Your task to perform on an android device: Open privacy settings Image 0: 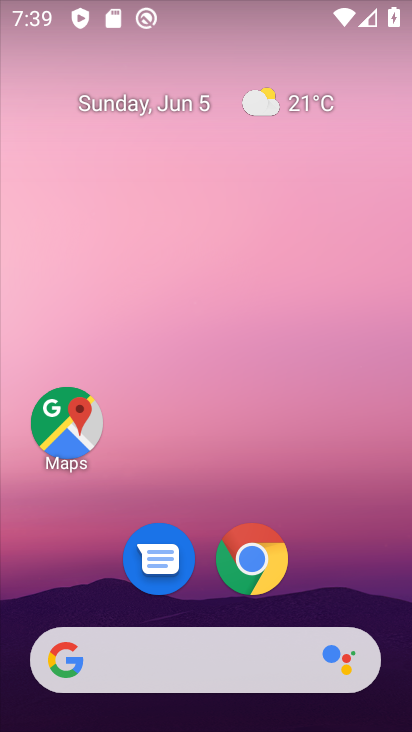
Step 0: drag from (283, 13) to (231, 607)
Your task to perform on an android device: Open privacy settings Image 1: 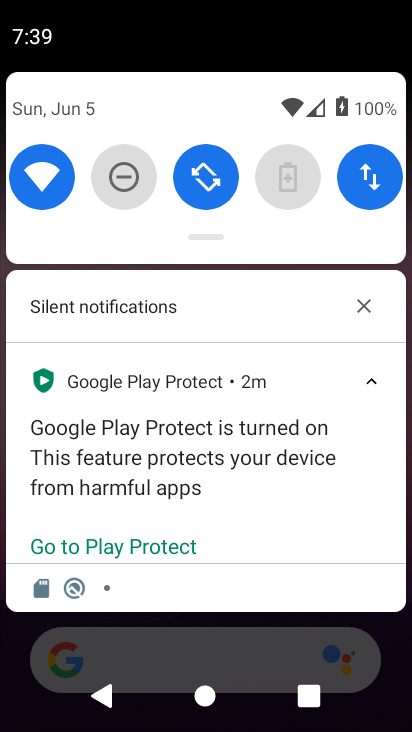
Step 1: drag from (339, 678) to (282, 54)
Your task to perform on an android device: Open privacy settings Image 2: 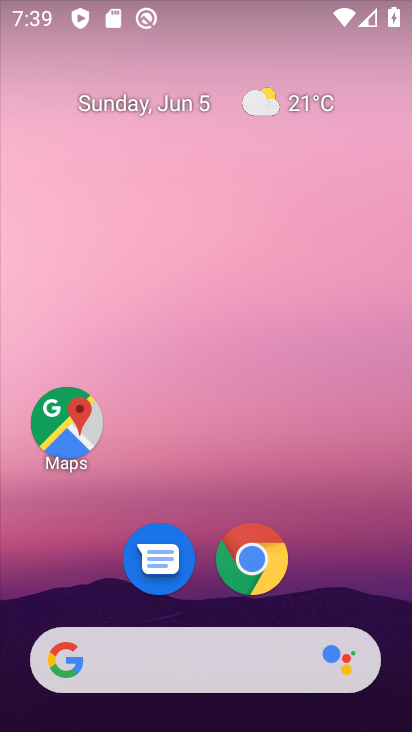
Step 2: drag from (368, 577) to (172, 131)
Your task to perform on an android device: Open privacy settings Image 3: 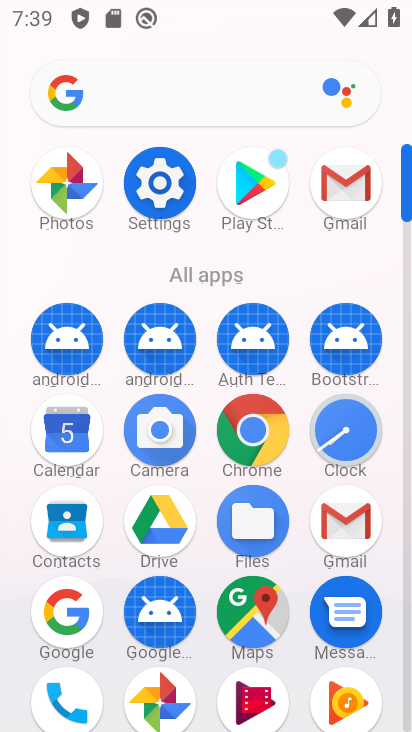
Step 3: click (144, 177)
Your task to perform on an android device: Open privacy settings Image 4: 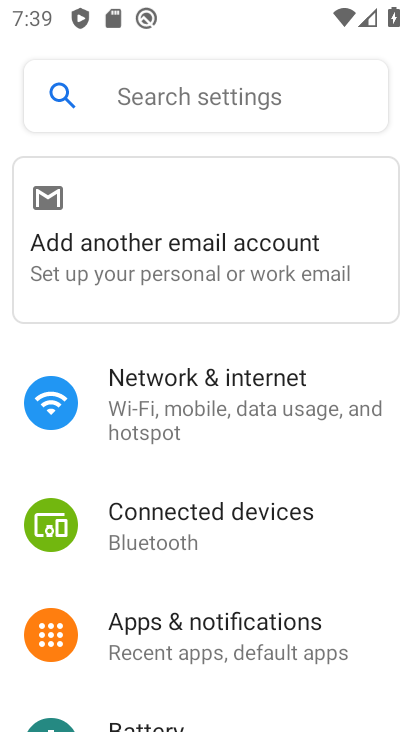
Step 4: drag from (229, 608) to (176, 165)
Your task to perform on an android device: Open privacy settings Image 5: 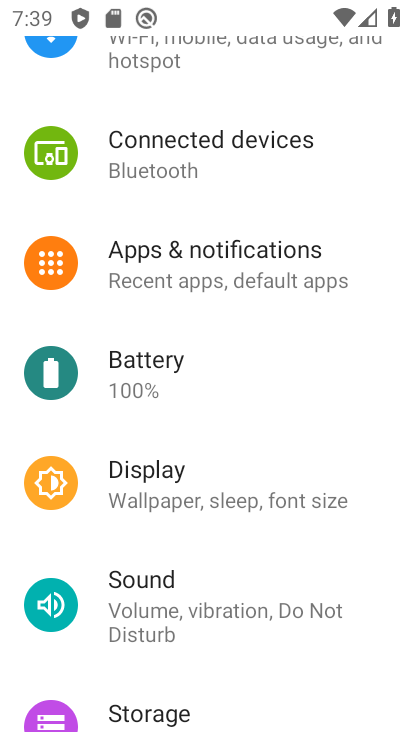
Step 5: drag from (237, 607) to (171, 209)
Your task to perform on an android device: Open privacy settings Image 6: 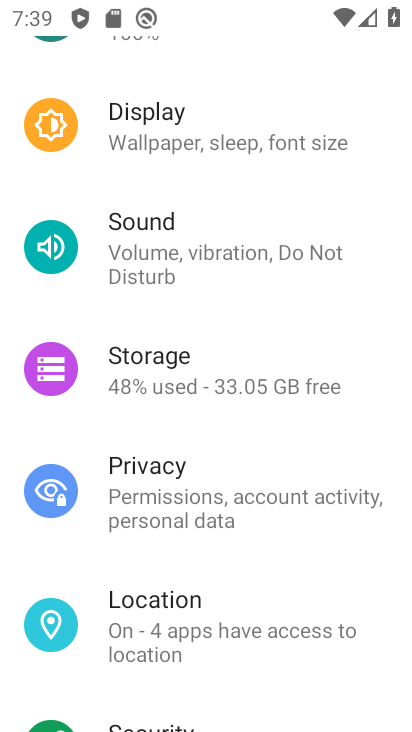
Step 6: click (167, 202)
Your task to perform on an android device: Open privacy settings Image 7: 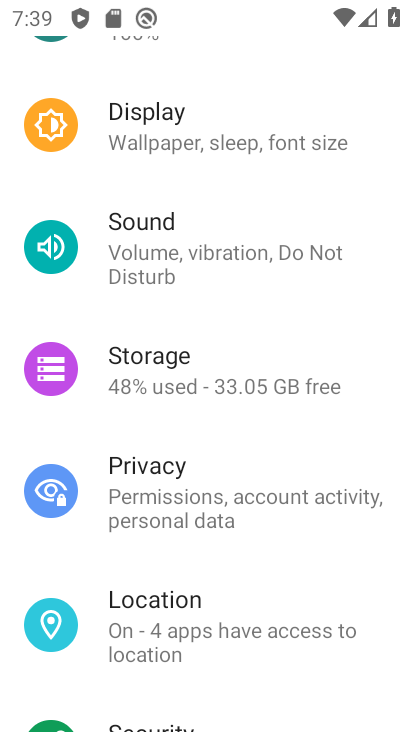
Step 7: click (155, 520)
Your task to perform on an android device: Open privacy settings Image 8: 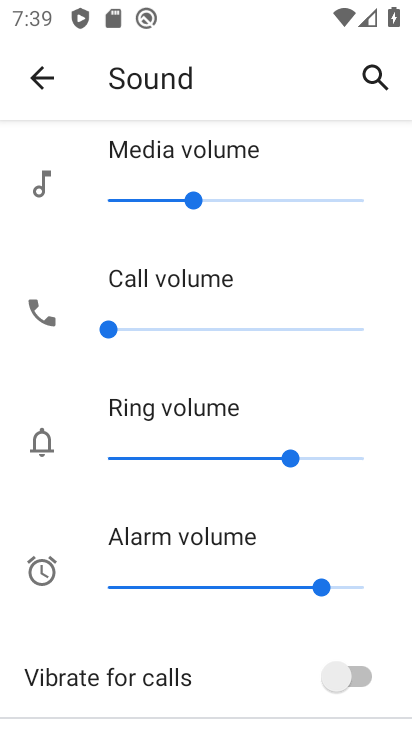
Step 8: click (39, 83)
Your task to perform on an android device: Open privacy settings Image 9: 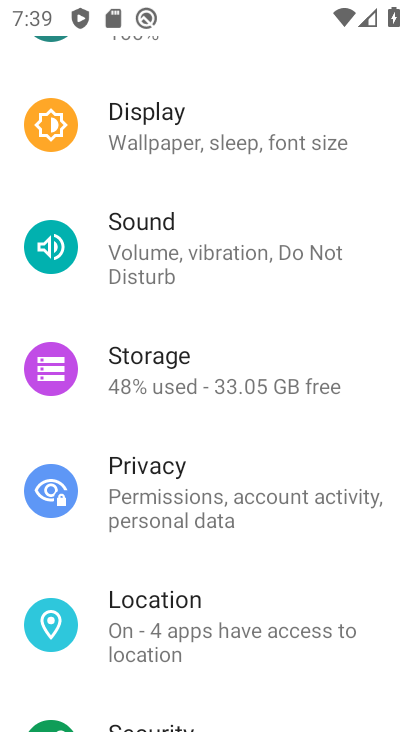
Step 9: click (171, 495)
Your task to perform on an android device: Open privacy settings Image 10: 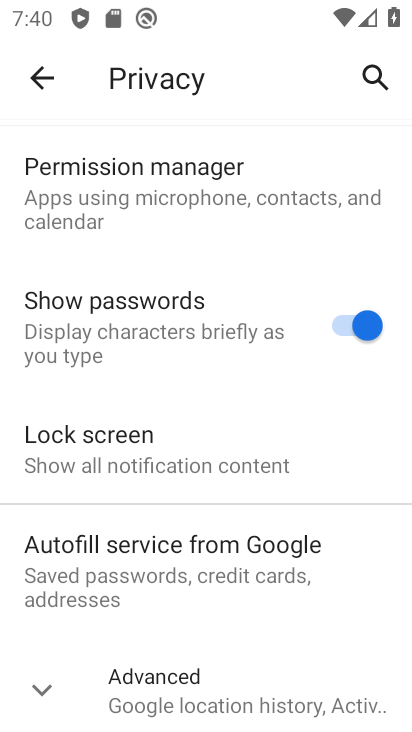
Step 10: task complete